Your task to perform on an android device: create a new album in the google photos Image 0: 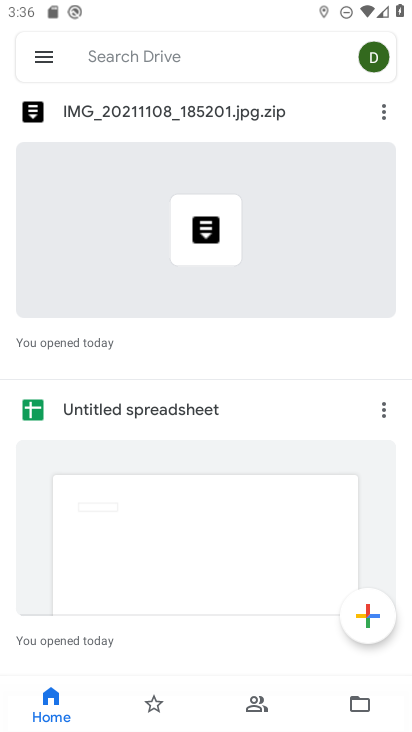
Step 0: press home button
Your task to perform on an android device: create a new album in the google photos Image 1: 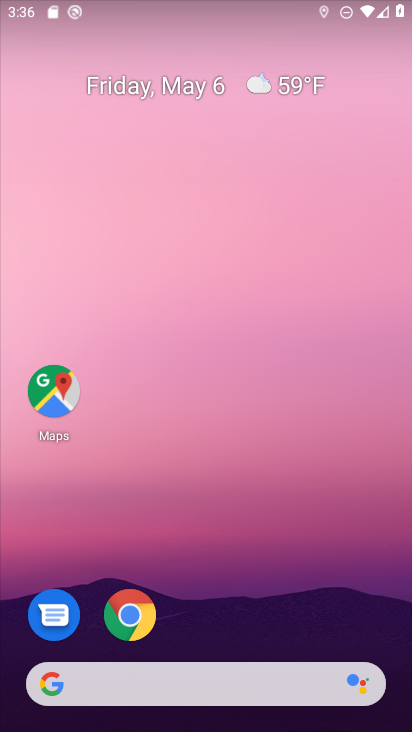
Step 1: drag from (259, 621) to (186, 119)
Your task to perform on an android device: create a new album in the google photos Image 2: 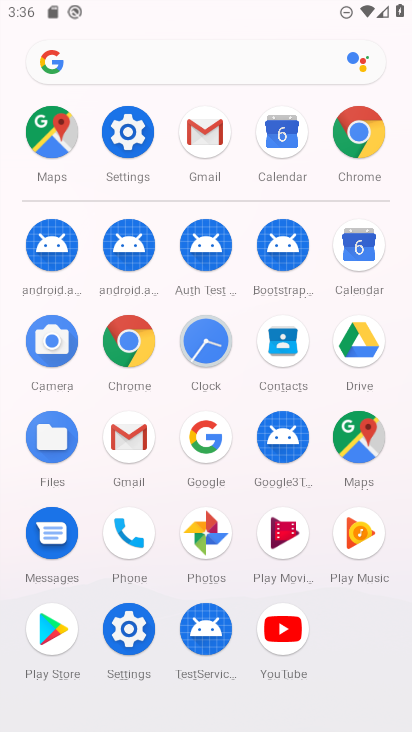
Step 2: click (202, 530)
Your task to perform on an android device: create a new album in the google photos Image 3: 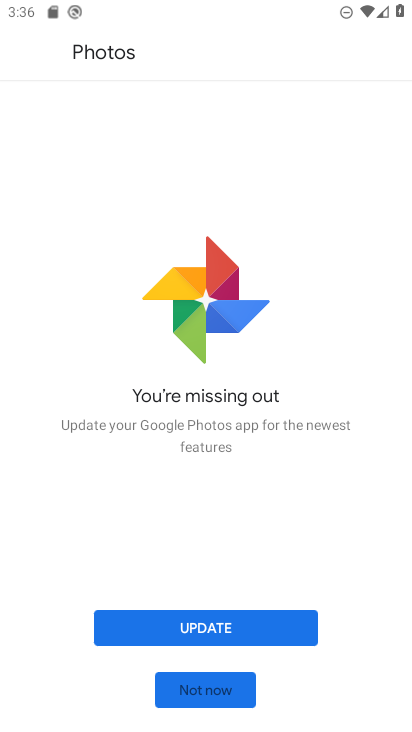
Step 3: click (250, 630)
Your task to perform on an android device: create a new album in the google photos Image 4: 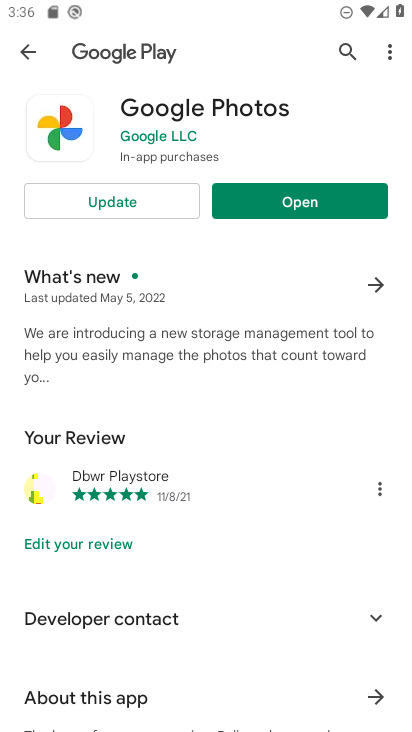
Step 4: click (132, 199)
Your task to perform on an android device: create a new album in the google photos Image 5: 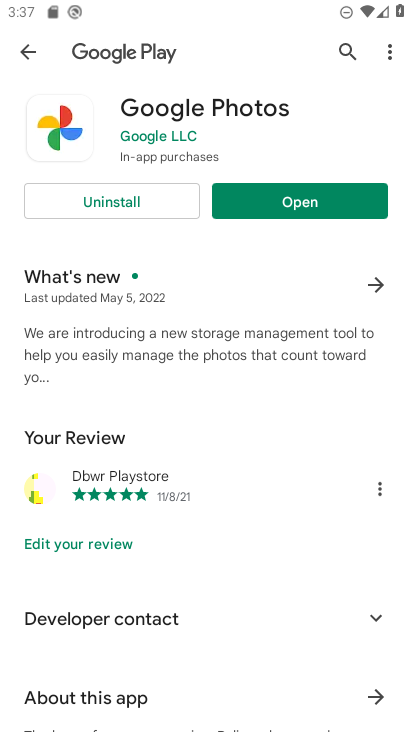
Step 5: click (331, 197)
Your task to perform on an android device: create a new album in the google photos Image 6: 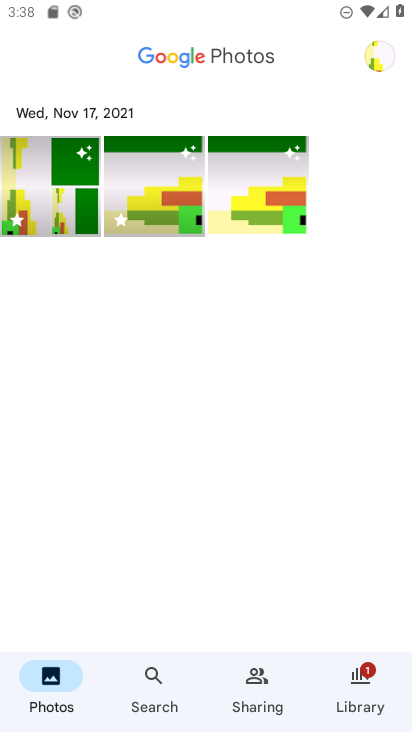
Step 6: click (36, 188)
Your task to perform on an android device: create a new album in the google photos Image 7: 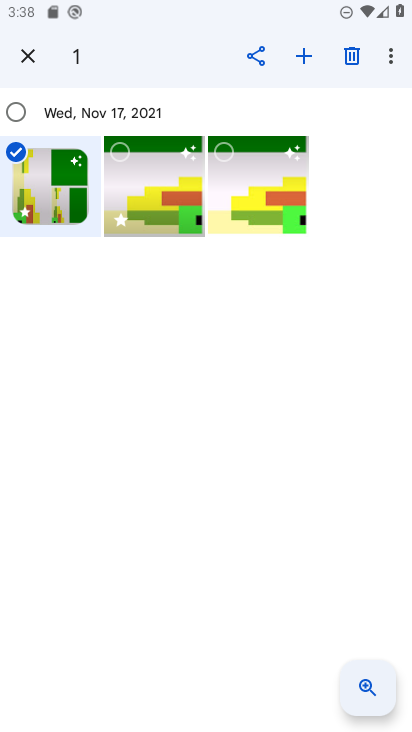
Step 7: click (124, 188)
Your task to perform on an android device: create a new album in the google photos Image 8: 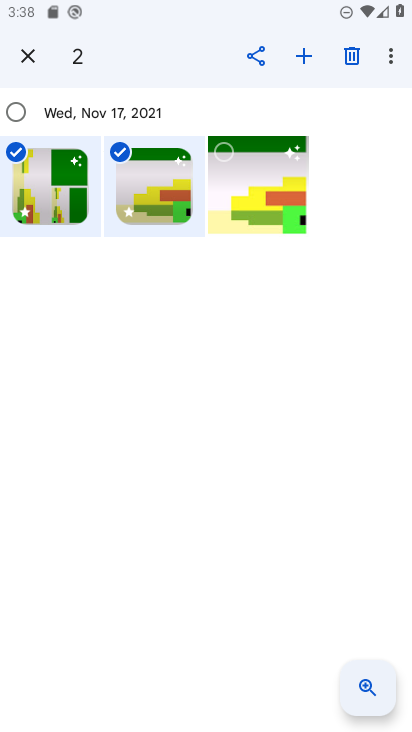
Step 8: click (299, 61)
Your task to perform on an android device: create a new album in the google photos Image 9: 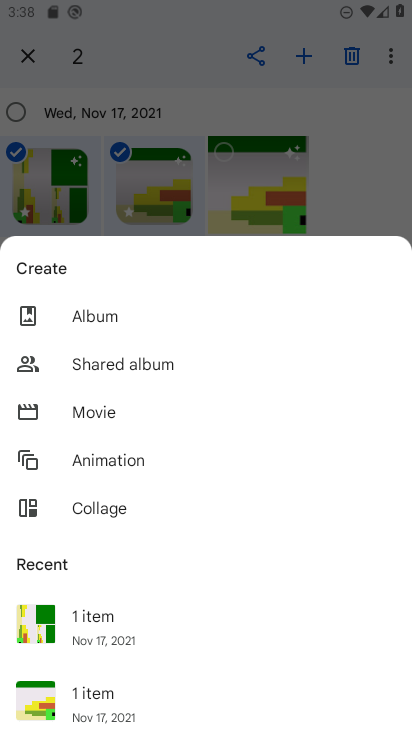
Step 9: click (93, 311)
Your task to perform on an android device: create a new album in the google photos Image 10: 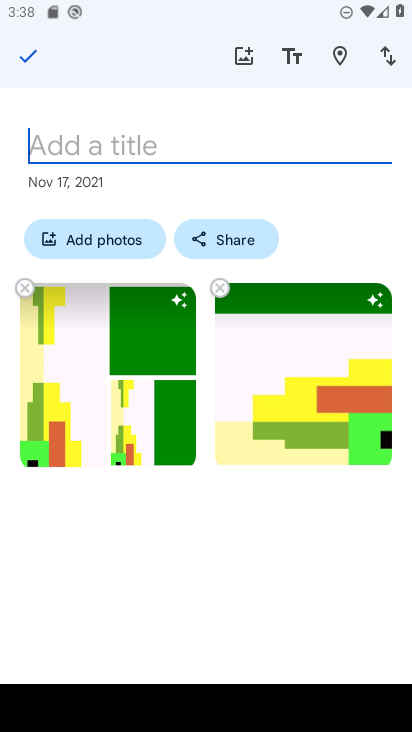
Step 10: type "nnmm"
Your task to perform on an android device: create a new album in the google photos Image 11: 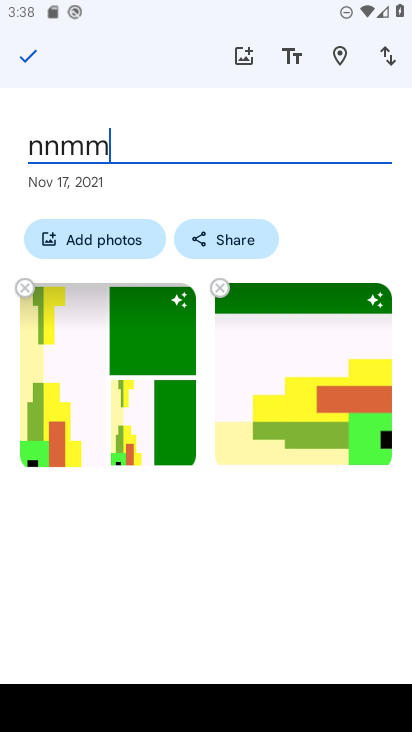
Step 11: click (31, 50)
Your task to perform on an android device: create a new album in the google photos Image 12: 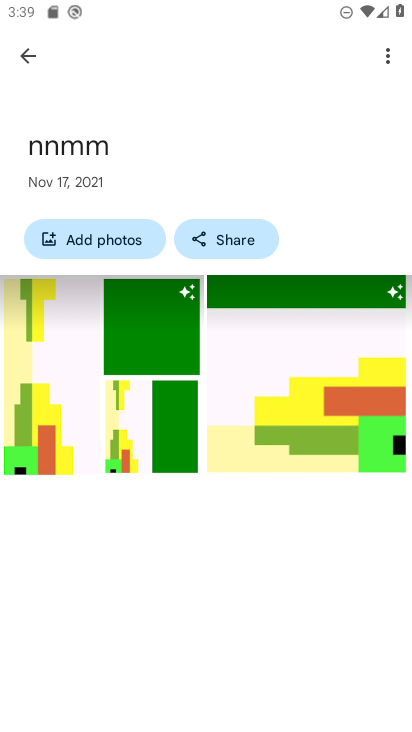
Step 12: task complete